Your task to perform on an android device: Open Wikipedia Image 0: 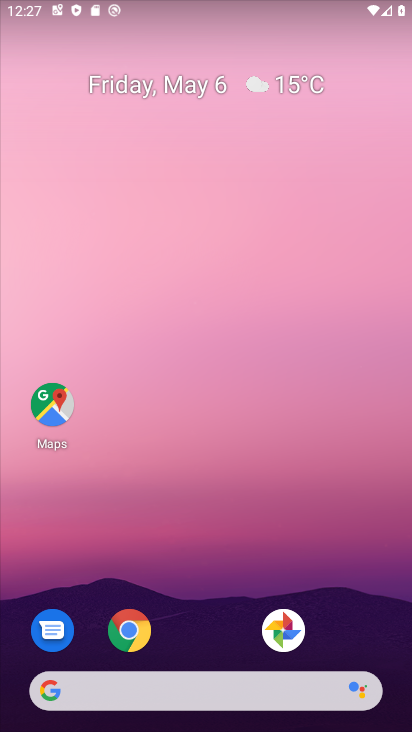
Step 0: drag from (196, 573) to (171, 103)
Your task to perform on an android device: Open Wikipedia Image 1: 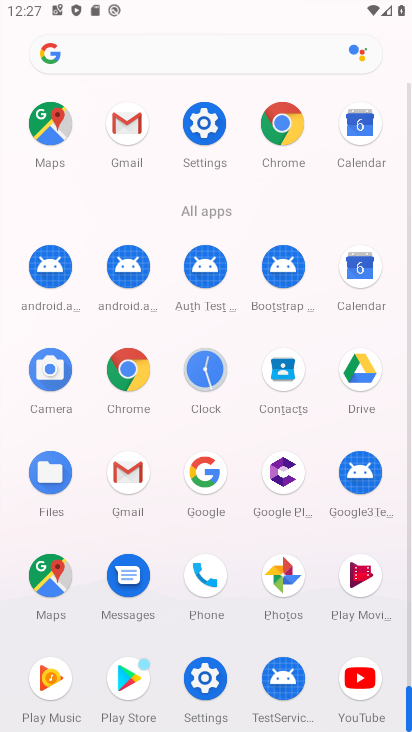
Step 1: click (269, 122)
Your task to perform on an android device: Open Wikipedia Image 2: 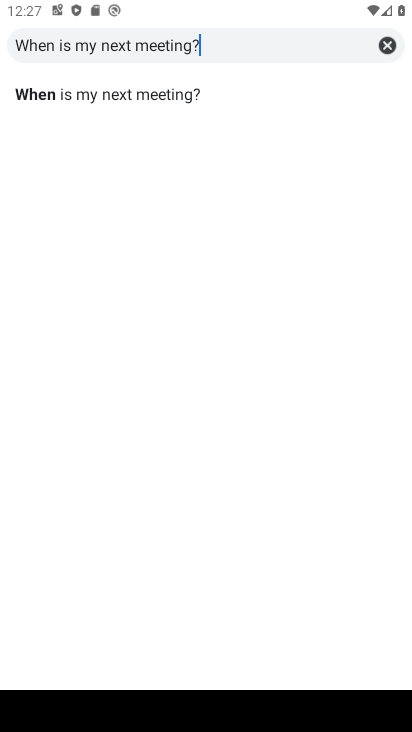
Step 2: click (379, 51)
Your task to perform on an android device: Open Wikipedia Image 3: 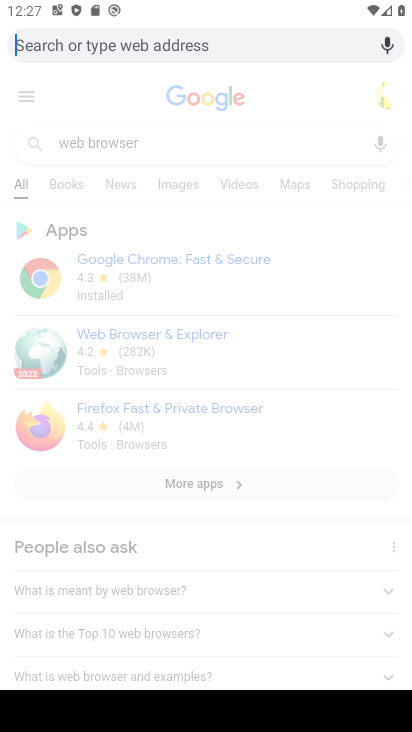
Step 3: click (314, 177)
Your task to perform on an android device: Open Wikipedia Image 4: 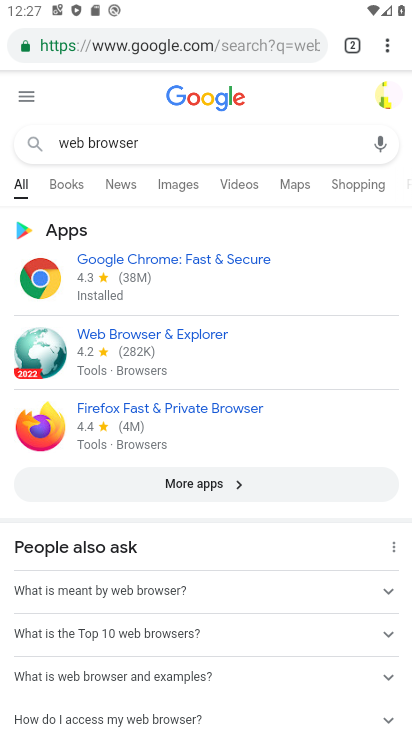
Step 4: click (387, 41)
Your task to perform on an android device: Open Wikipedia Image 5: 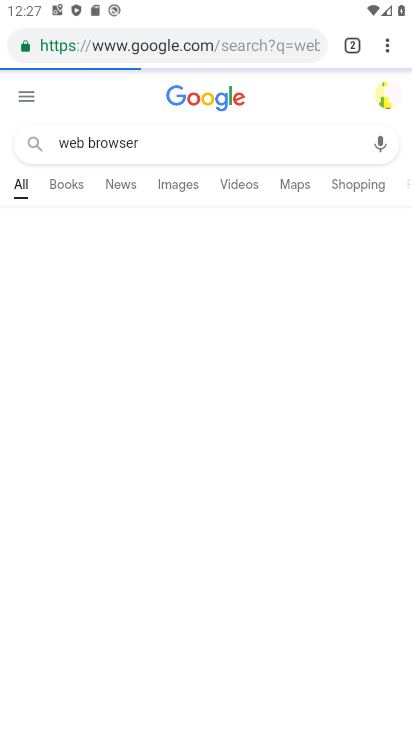
Step 5: drag from (387, 41) to (247, 80)
Your task to perform on an android device: Open Wikipedia Image 6: 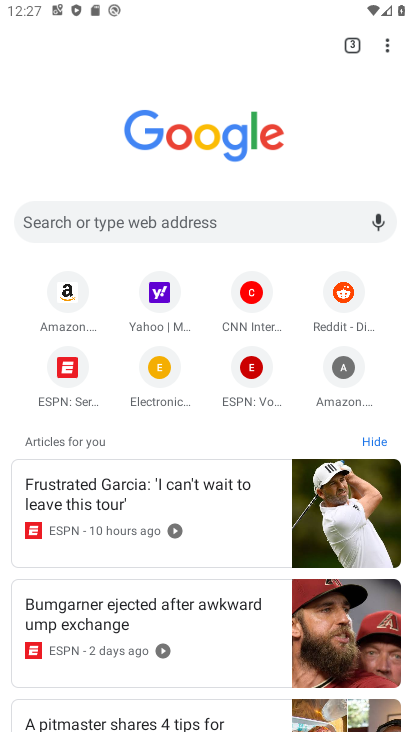
Step 6: click (262, 223)
Your task to perform on an android device: Open Wikipedia Image 7: 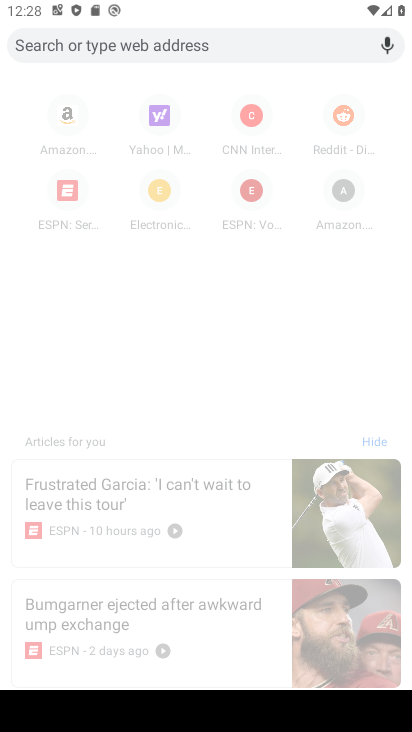
Step 7: type " Wikipedia"
Your task to perform on an android device: Open Wikipedia Image 8: 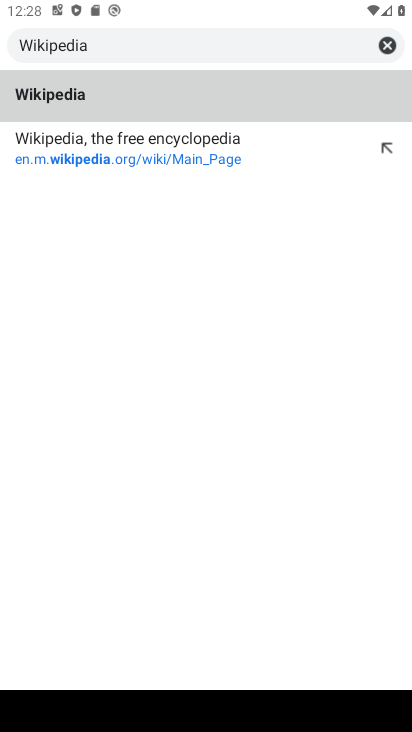
Step 8: click (69, 81)
Your task to perform on an android device: Open Wikipedia Image 9: 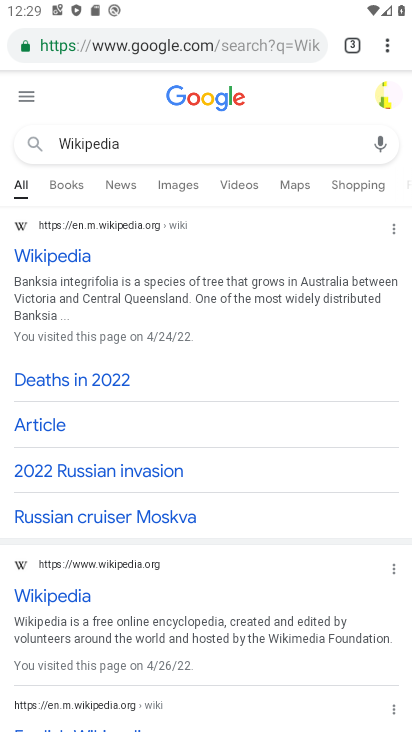
Step 9: task complete